Your task to perform on an android device: Go to Google Image 0: 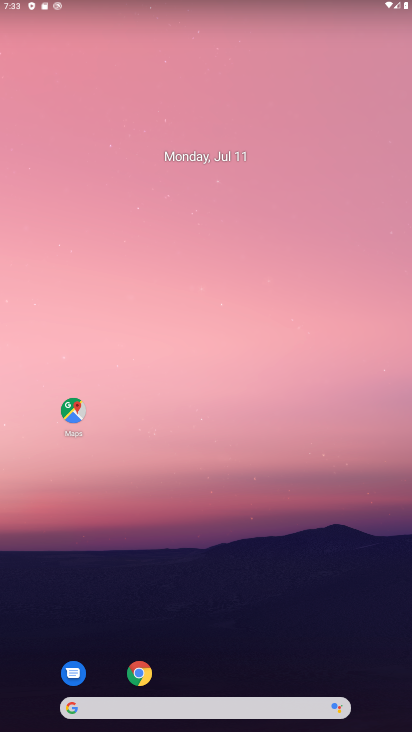
Step 0: drag from (202, 687) to (202, 275)
Your task to perform on an android device: Go to Google Image 1: 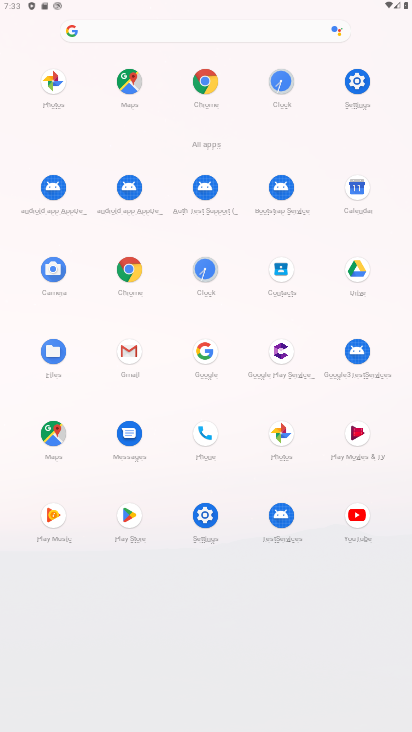
Step 1: click (198, 357)
Your task to perform on an android device: Go to Google Image 2: 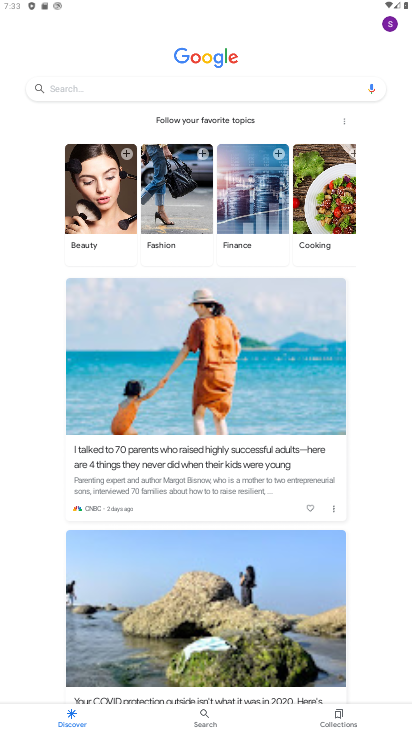
Step 2: task complete